Your task to perform on an android device: open a bookmark in the chrome app Image 0: 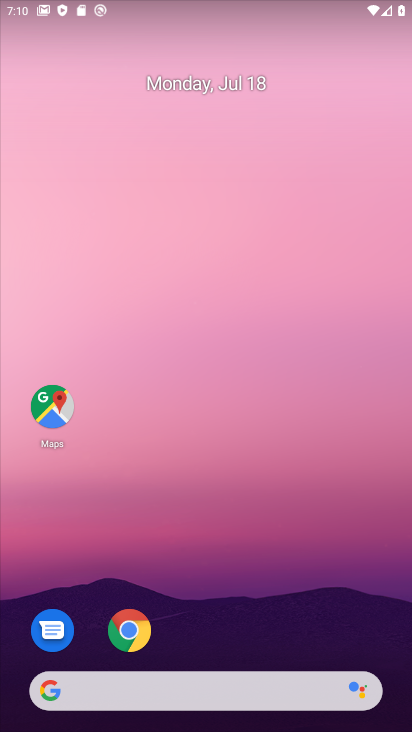
Step 0: drag from (254, 517) to (197, 8)
Your task to perform on an android device: open a bookmark in the chrome app Image 1: 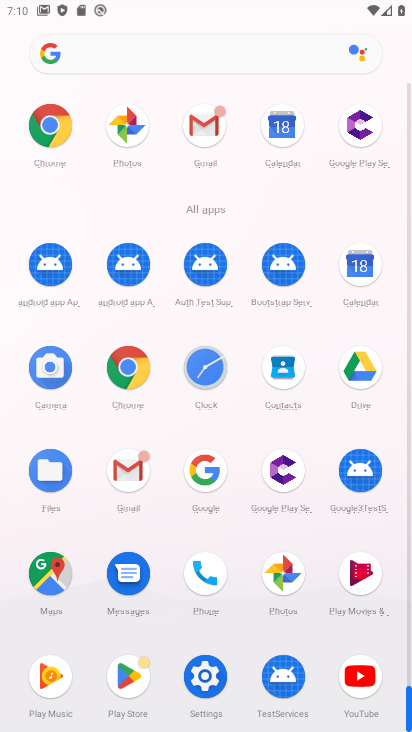
Step 1: click (56, 134)
Your task to perform on an android device: open a bookmark in the chrome app Image 2: 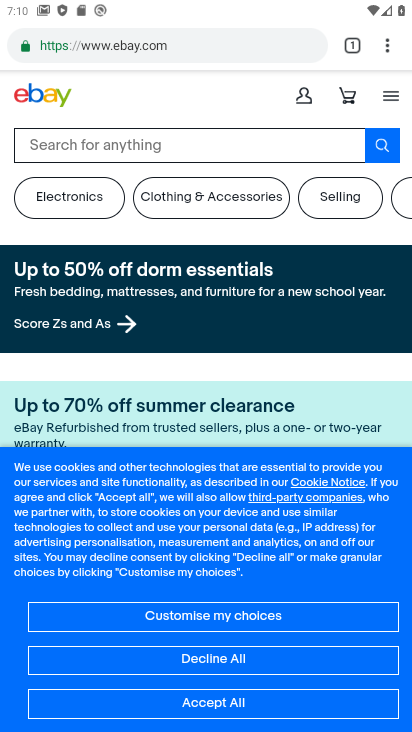
Step 2: drag from (386, 50) to (249, 173)
Your task to perform on an android device: open a bookmark in the chrome app Image 3: 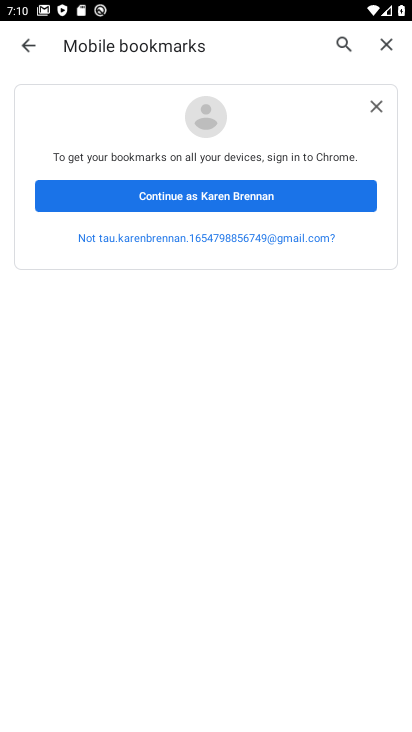
Step 3: click (237, 195)
Your task to perform on an android device: open a bookmark in the chrome app Image 4: 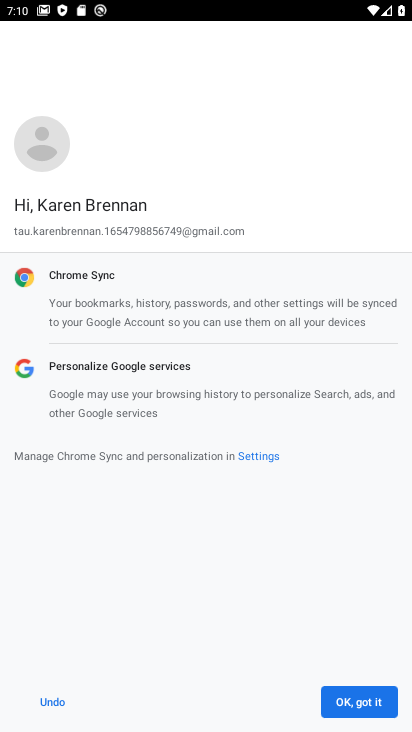
Step 4: click (353, 706)
Your task to perform on an android device: open a bookmark in the chrome app Image 5: 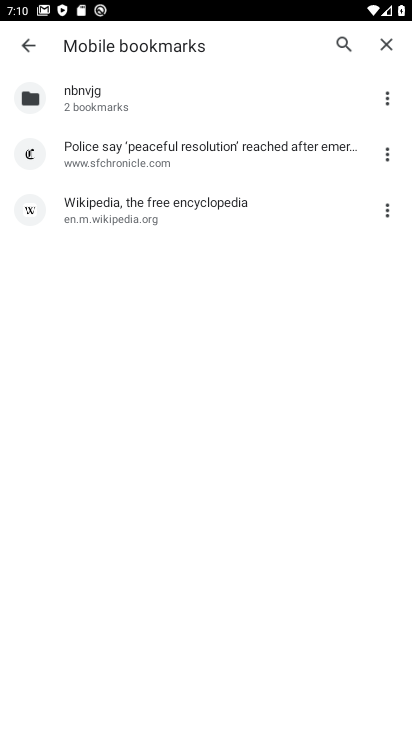
Step 5: task complete